Your task to perform on an android device: make emails show in primary in the gmail app Image 0: 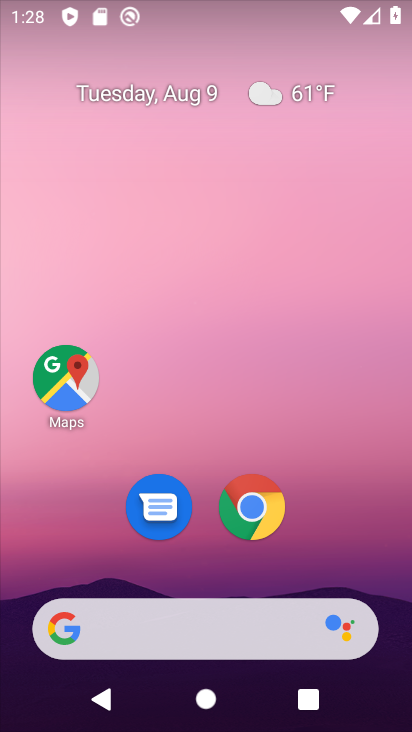
Step 0: drag from (192, 541) to (170, 0)
Your task to perform on an android device: make emails show in primary in the gmail app Image 1: 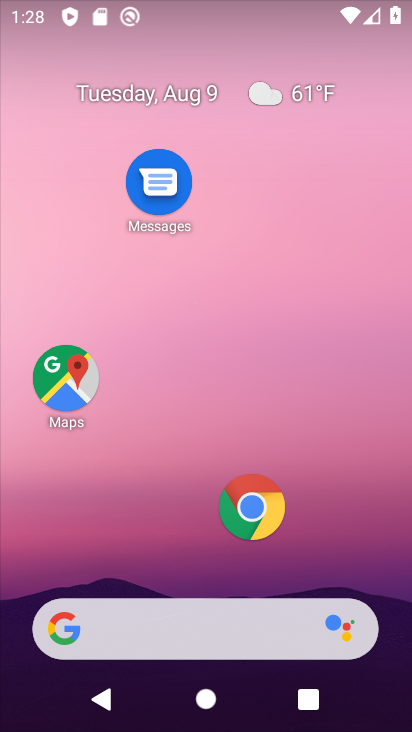
Step 1: drag from (155, 561) to (209, 146)
Your task to perform on an android device: make emails show in primary in the gmail app Image 2: 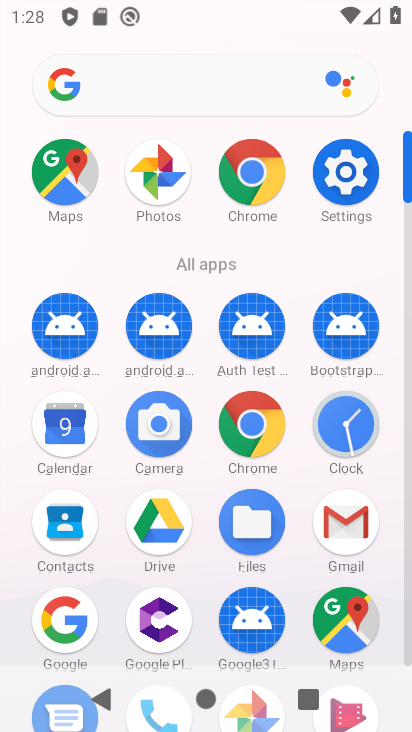
Step 2: click (341, 516)
Your task to perform on an android device: make emails show in primary in the gmail app Image 3: 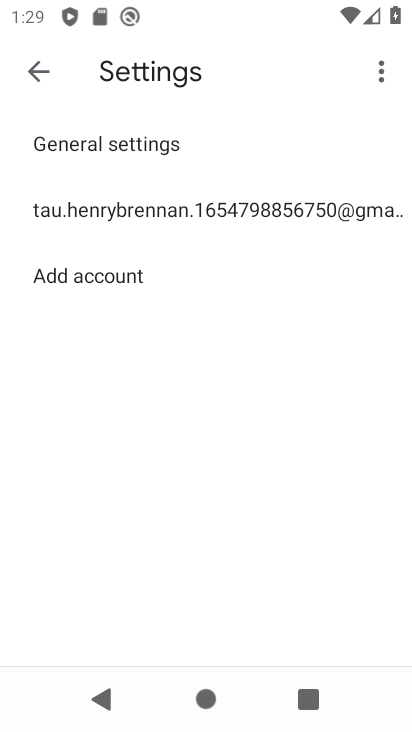
Step 3: click (163, 216)
Your task to perform on an android device: make emails show in primary in the gmail app Image 4: 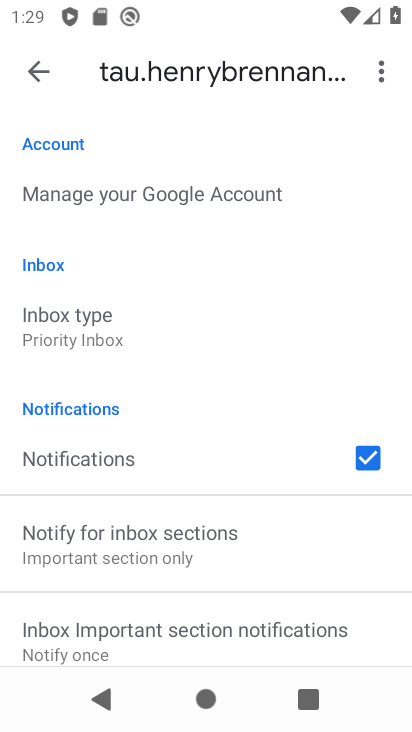
Step 4: task complete